Your task to perform on an android device: Go to Amazon Image 0: 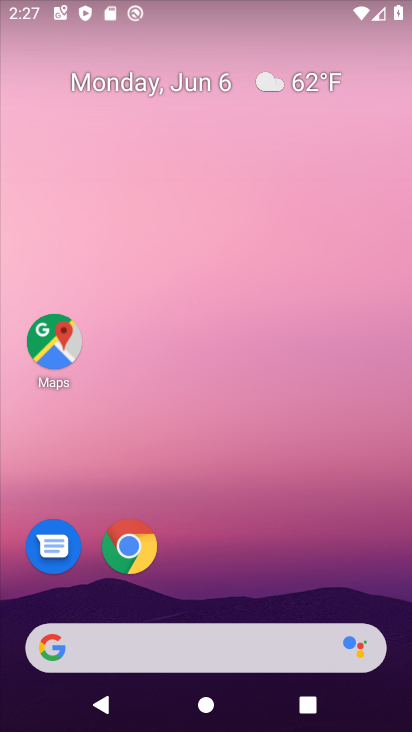
Step 0: drag from (224, 560) to (263, 169)
Your task to perform on an android device: Go to Amazon Image 1: 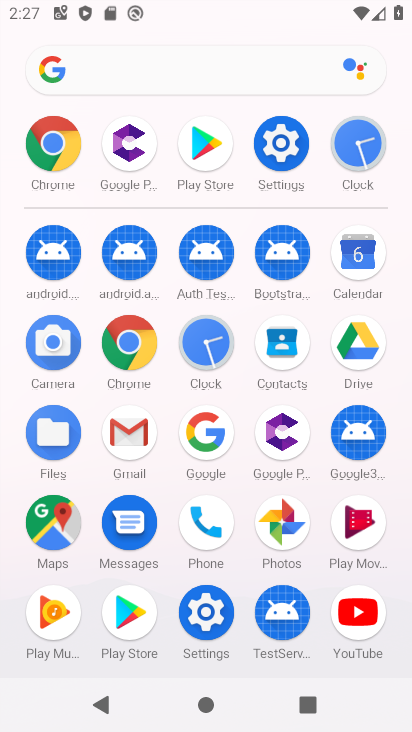
Step 1: click (129, 344)
Your task to perform on an android device: Go to Amazon Image 2: 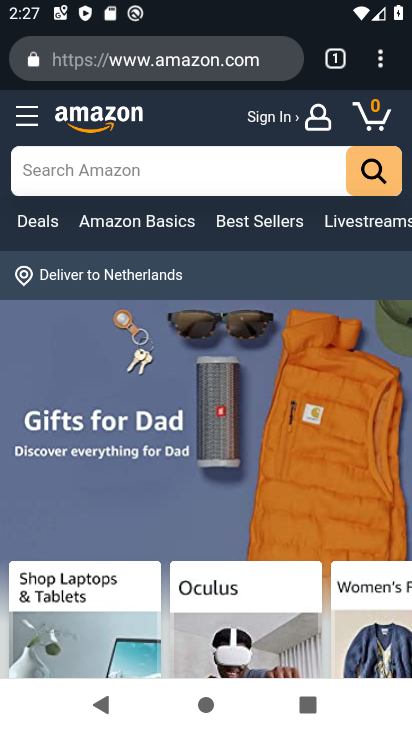
Step 2: task complete